Your task to perform on an android device: Open internet settings Image 0: 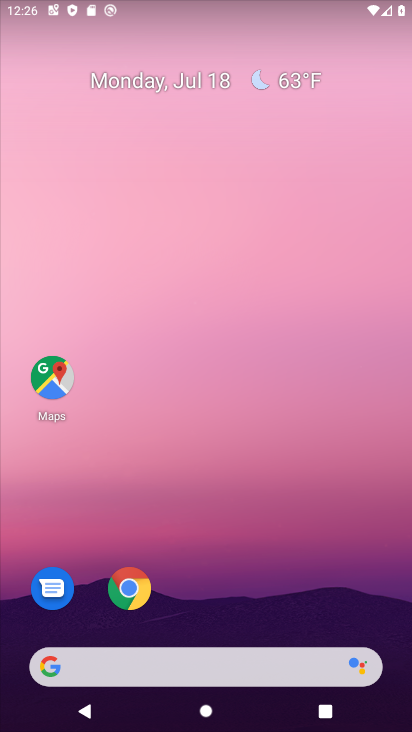
Step 0: drag from (238, 636) to (226, 169)
Your task to perform on an android device: Open internet settings Image 1: 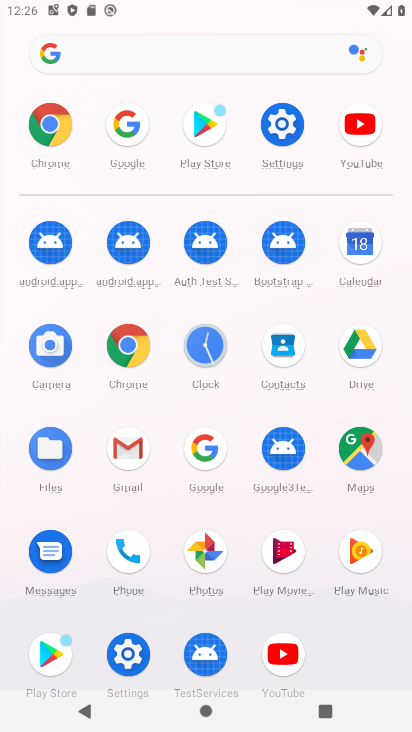
Step 1: click (280, 113)
Your task to perform on an android device: Open internet settings Image 2: 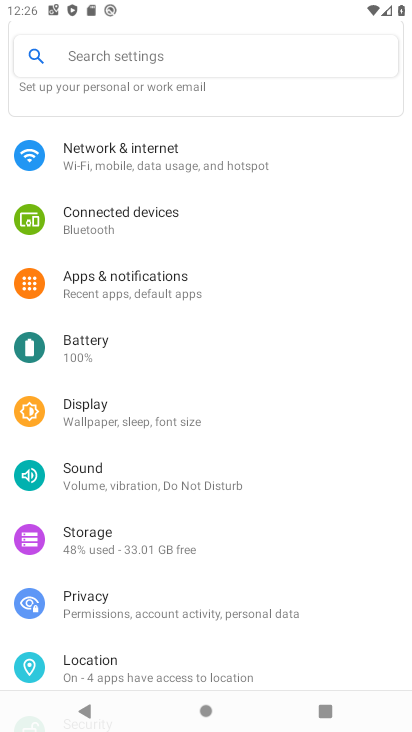
Step 2: click (136, 157)
Your task to perform on an android device: Open internet settings Image 3: 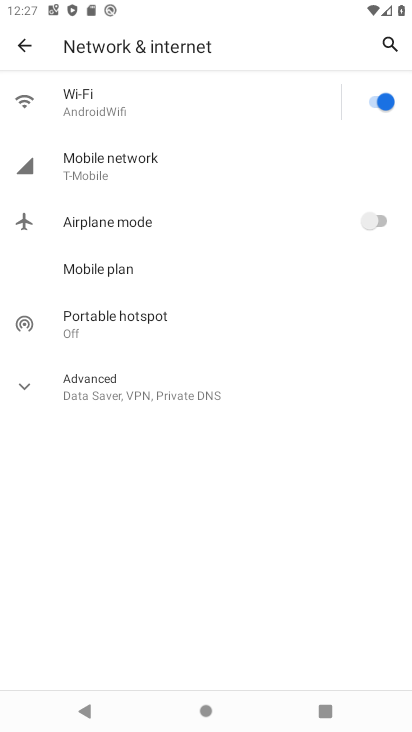
Step 3: task complete